Your task to perform on an android device: check out phone information Image 0: 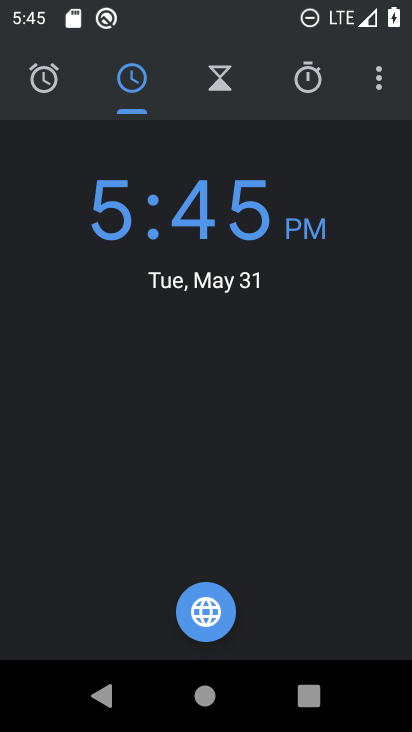
Step 0: press home button
Your task to perform on an android device: check out phone information Image 1: 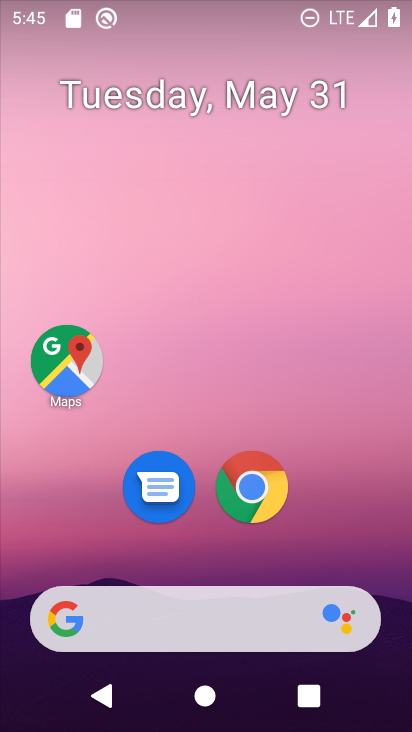
Step 1: drag from (340, 533) to (248, 74)
Your task to perform on an android device: check out phone information Image 2: 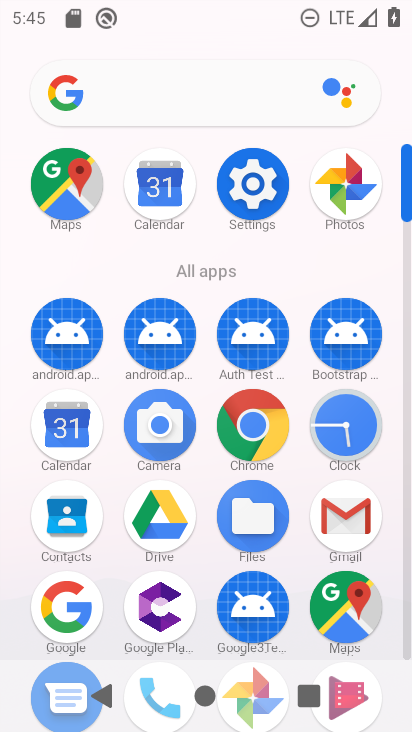
Step 2: click (253, 179)
Your task to perform on an android device: check out phone information Image 3: 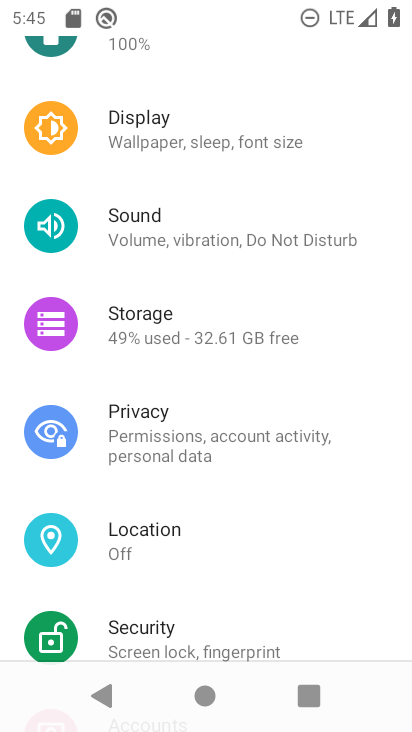
Step 3: drag from (237, 513) to (185, 132)
Your task to perform on an android device: check out phone information Image 4: 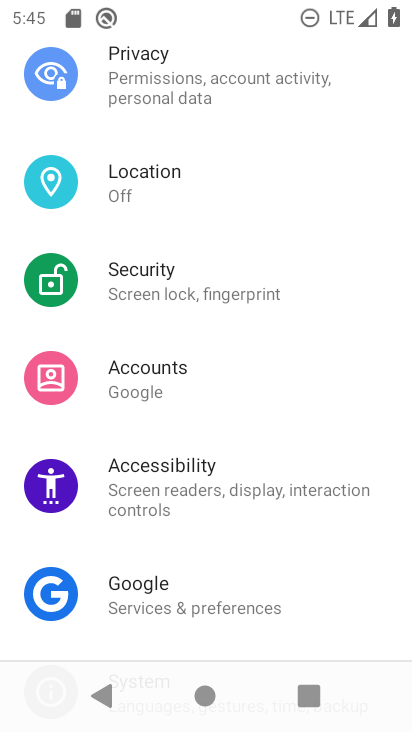
Step 4: drag from (249, 591) to (239, 213)
Your task to perform on an android device: check out phone information Image 5: 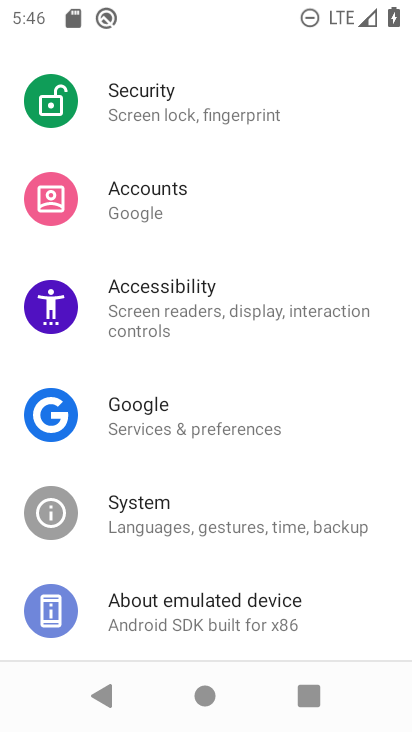
Step 5: click (204, 607)
Your task to perform on an android device: check out phone information Image 6: 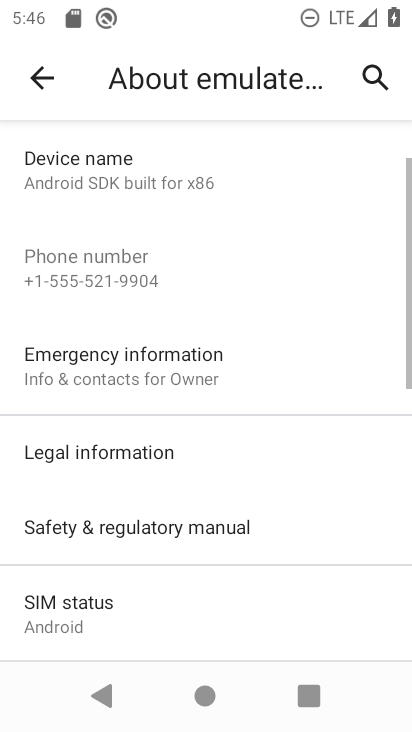
Step 6: task complete